Your task to perform on an android device: Open my contact list Image 0: 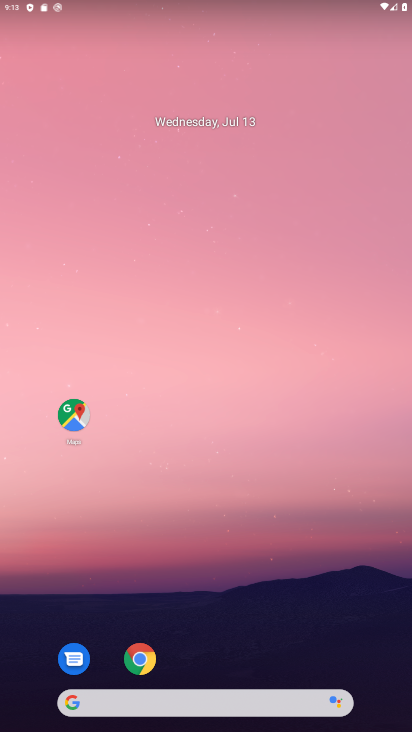
Step 0: drag from (296, 665) to (377, 320)
Your task to perform on an android device: Open my contact list Image 1: 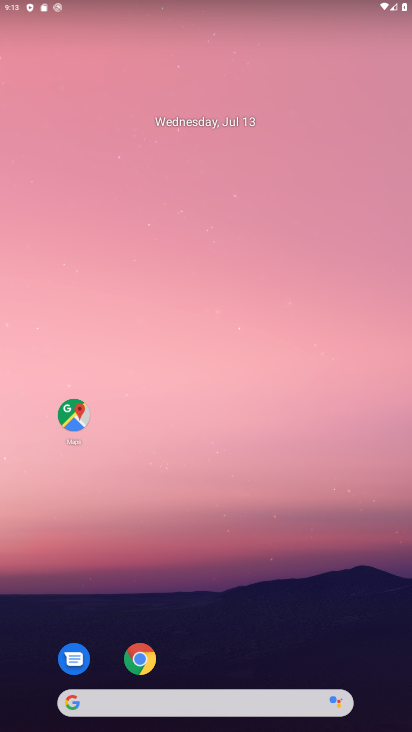
Step 1: click (398, 349)
Your task to perform on an android device: Open my contact list Image 2: 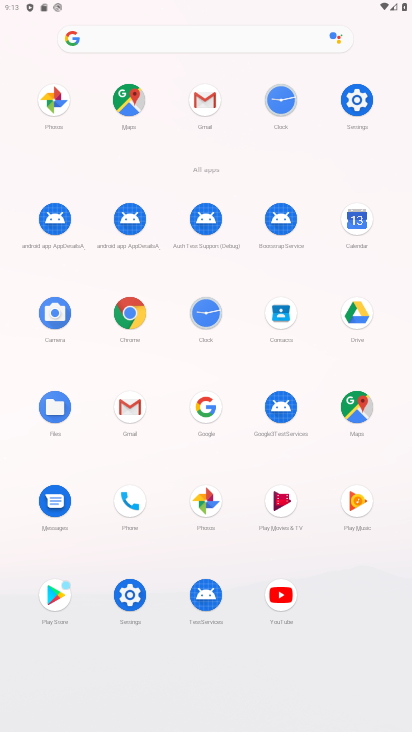
Step 2: click (293, 318)
Your task to perform on an android device: Open my contact list Image 3: 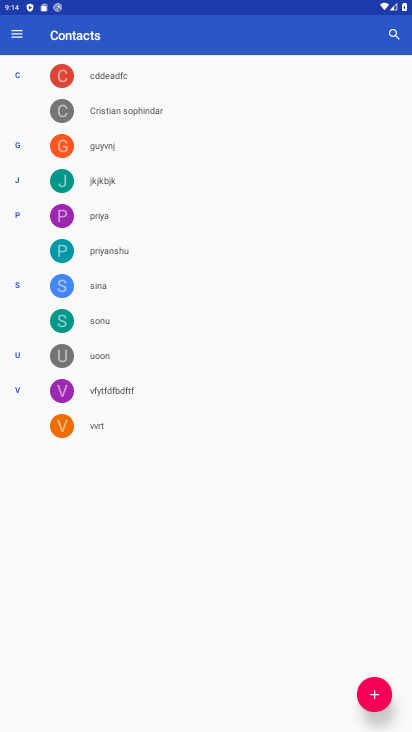
Step 3: task complete